Your task to perform on an android device: change your default location settings in chrome Image 0: 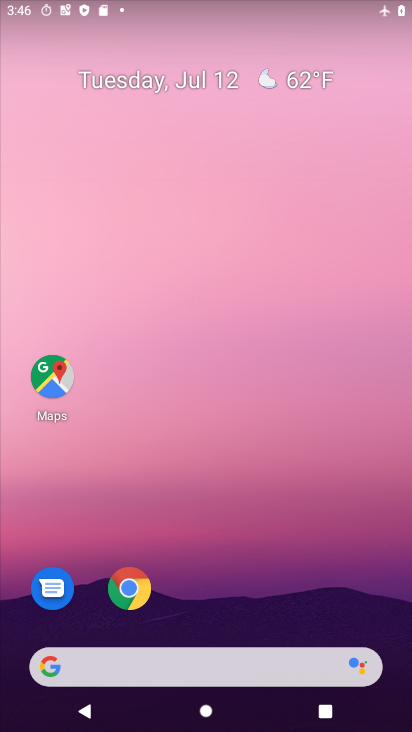
Step 0: drag from (198, 603) to (134, 33)
Your task to perform on an android device: change your default location settings in chrome Image 1: 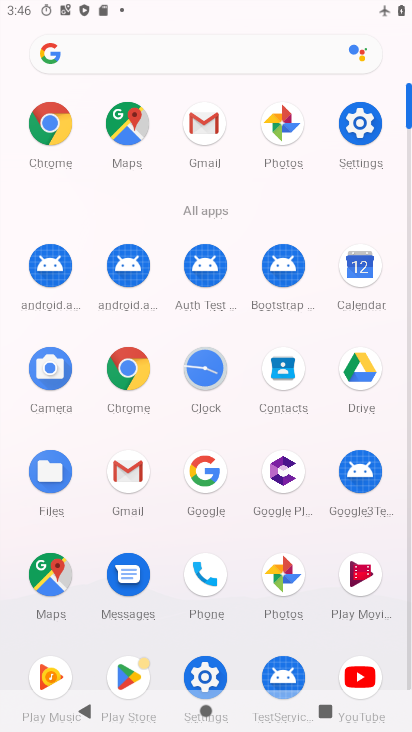
Step 1: click (136, 370)
Your task to perform on an android device: change your default location settings in chrome Image 2: 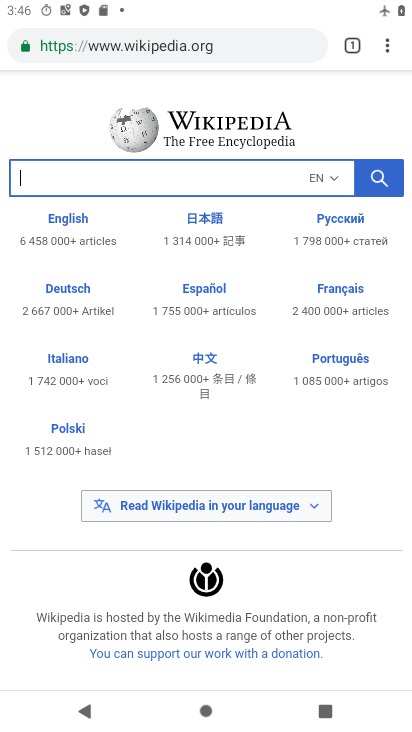
Step 2: click (387, 52)
Your task to perform on an android device: change your default location settings in chrome Image 3: 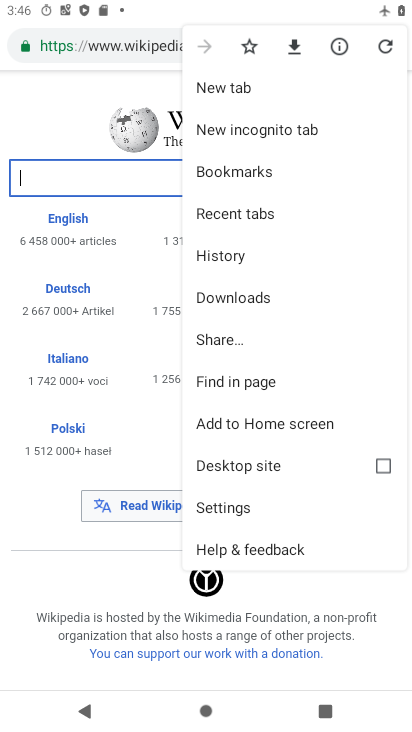
Step 3: click (244, 510)
Your task to perform on an android device: change your default location settings in chrome Image 4: 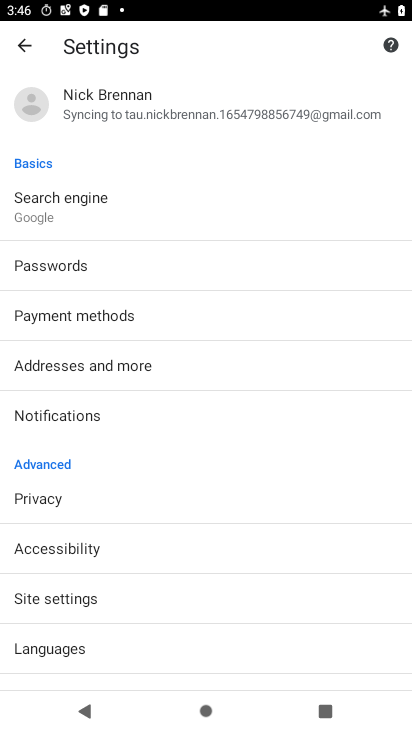
Step 4: click (64, 593)
Your task to perform on an android device: change your default location settings in chrome Image 5: 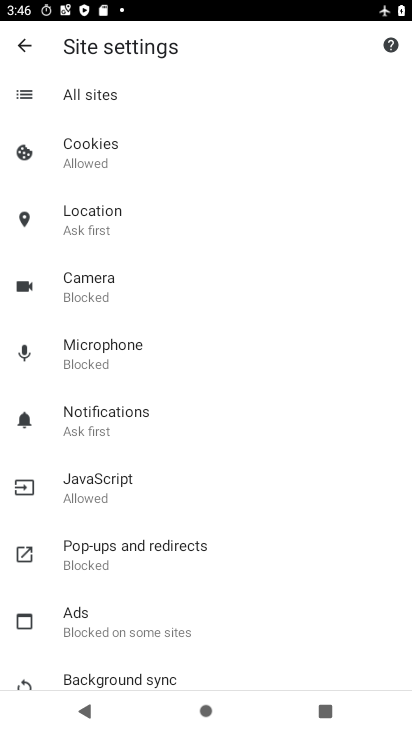
Step 5: click (94, 235)
Your task to perform on an android device: change your default location settings in chrome Image 6: 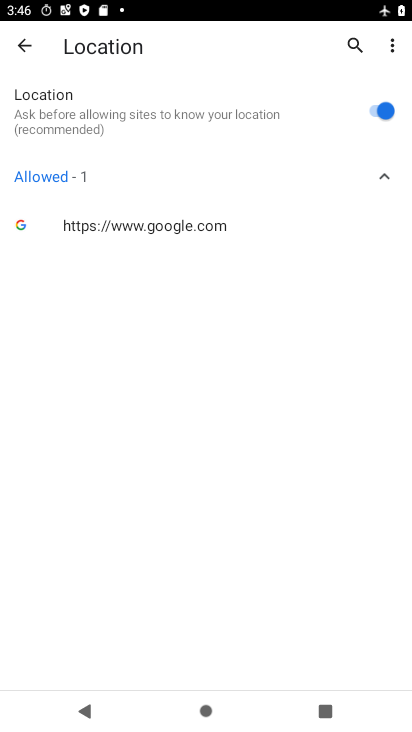
Step 6: click (363, 115)
Your task to perform on an android device: change your default location settings in chrome Image 7: 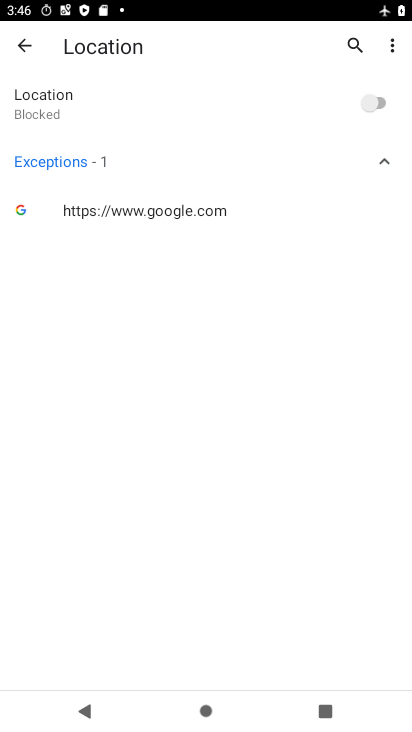
Step 7: task complete